Your task to perform on an android device: turn off javascript in the chrome app Image 0: 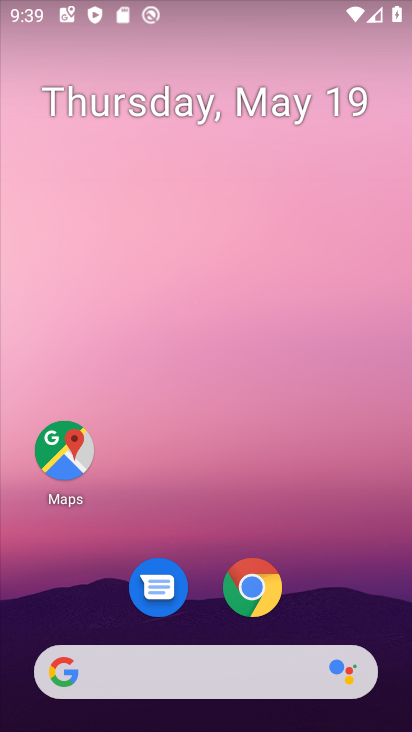
Step 0: click (258, 576)
Your task to perform on an android device: turn off javascript in the chrome app Image 1: 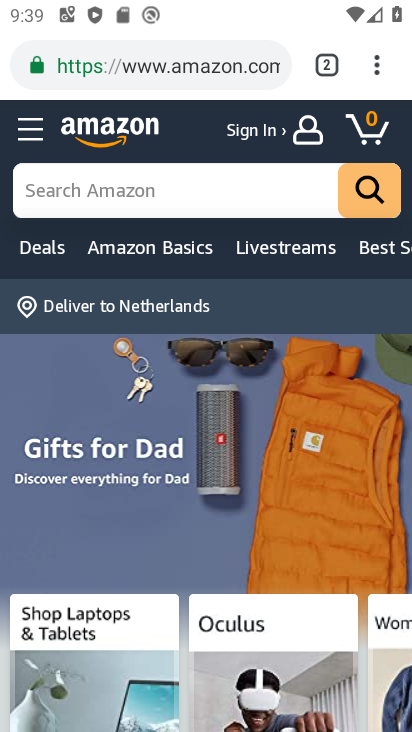
Step 1: drag from (375, 55) to (202, 632)
Your task to perform on an android device: turn off javascript in the chrome app Image 2: 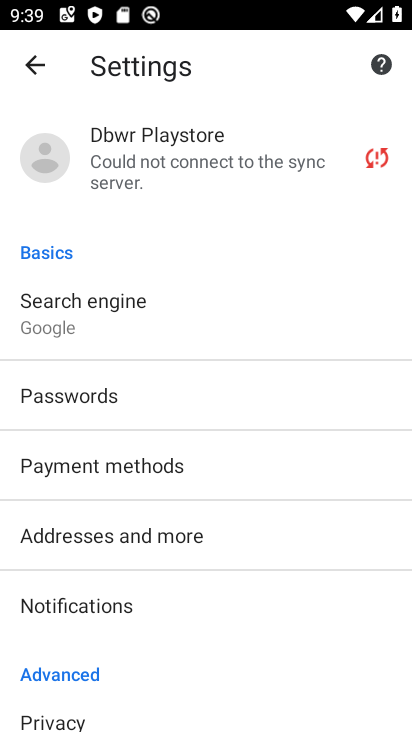
Step 2: drag from (162, 575) to (111, 185)
Your task to perform on an android device: turn off javascript in the chrome app Image 3: 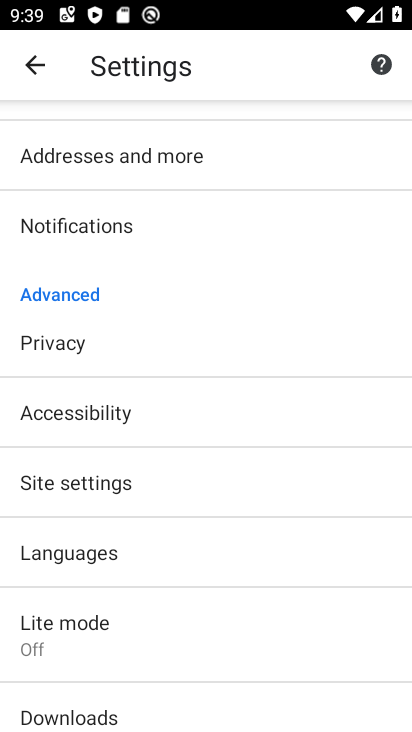
Step 3: click (116, 480)
Your task to perform on an android device: turn off javascript in the chrome app Image 4: 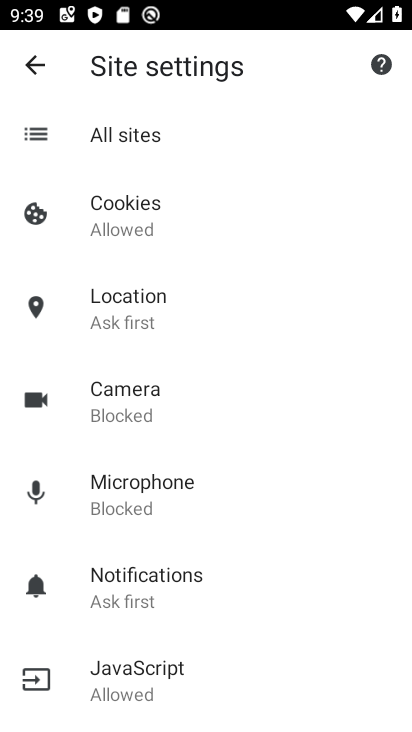
Step 4: click (142, 671)
Your task to perform on an android device: turn off javascript in the chrome app Image 5: 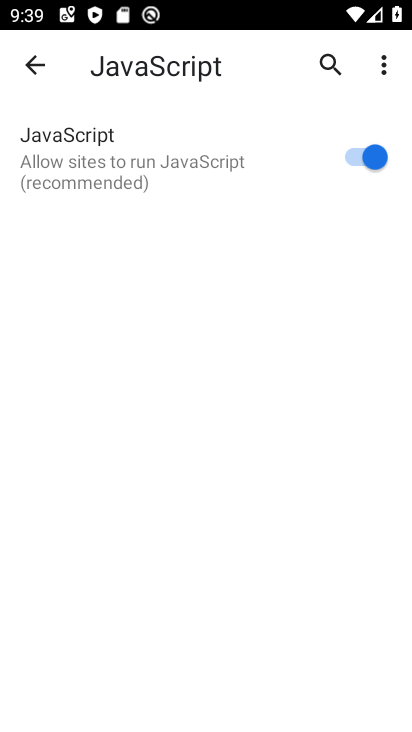
Step 5: click (384, 160)
Your task to perform on an android device: turn off javascript in the chrome app Image 6: 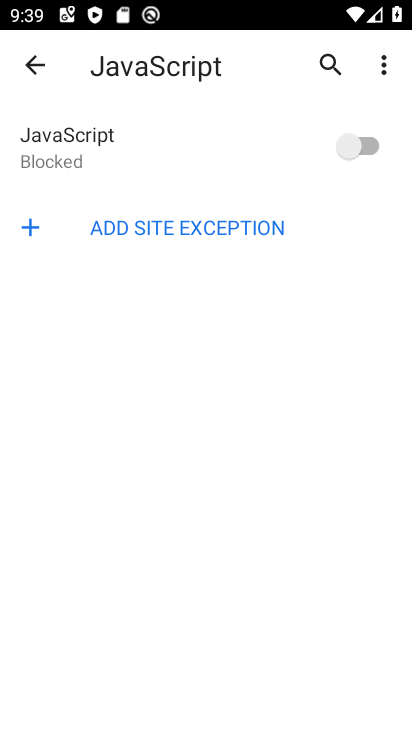
Step 6: task complete